Your task to perform on an android device: turn off notifications in google photos Image 0: 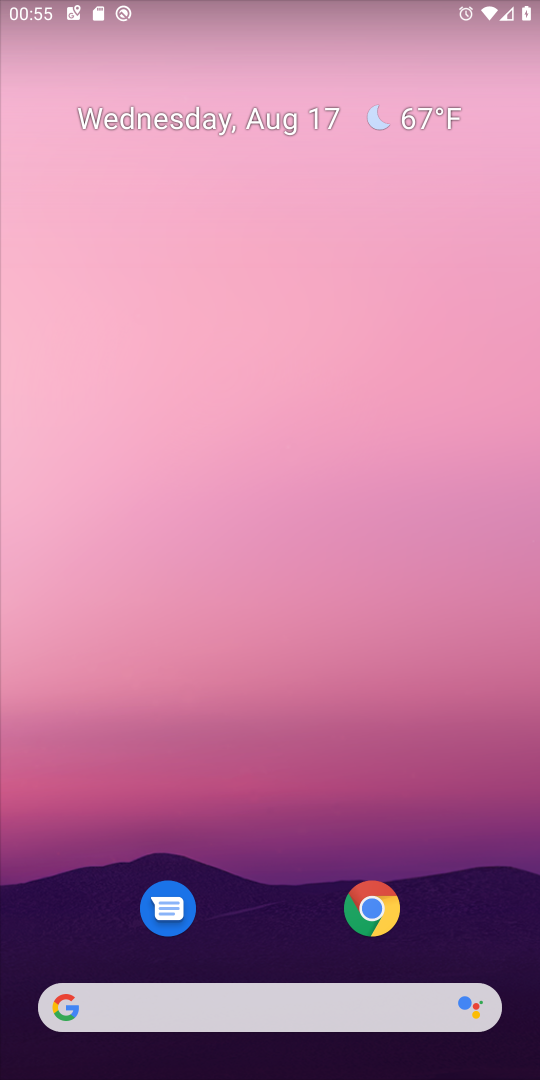
Step 0: drag from (272, 901) to (298, 346)
Your task to perform on an android device: turn off notifications in google photos Image 1: 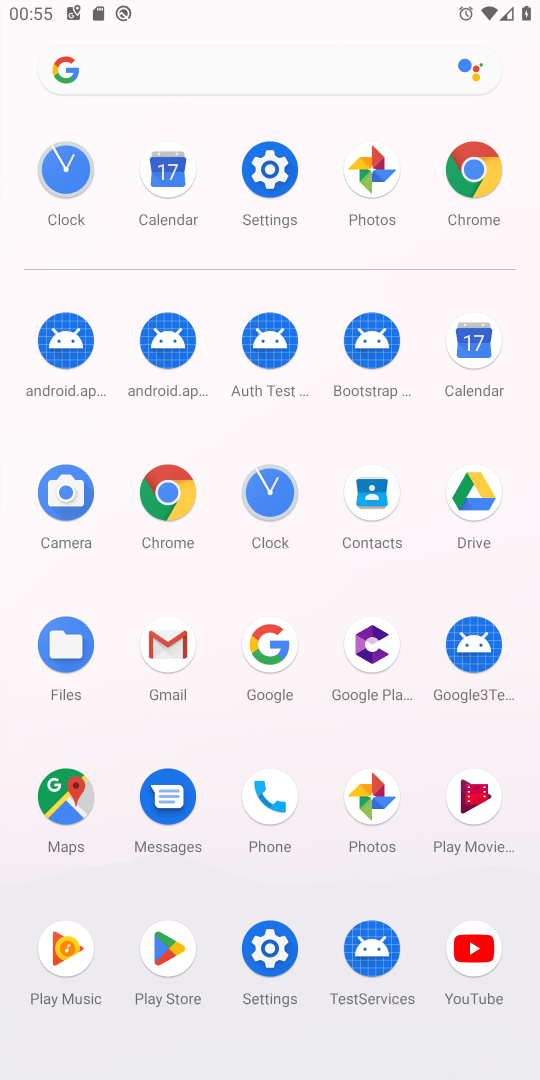
Step 1: click (374, 184)
Your task to perform on an android device: turn off notifications in google photos Image 2: 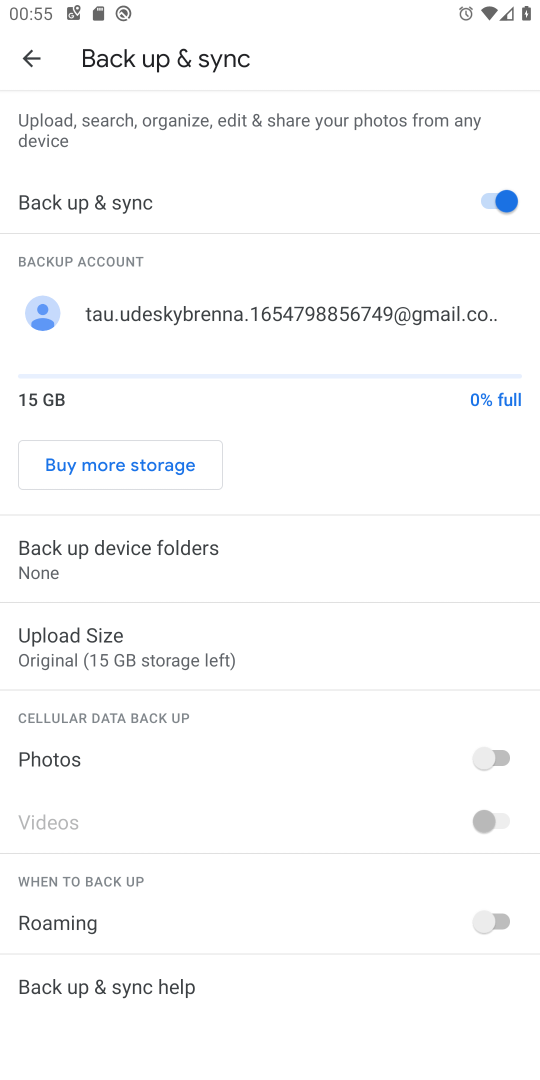
Step 2: click (26, 48)
Your task to perform on an android device: turn off notifications in google photos Image 3: 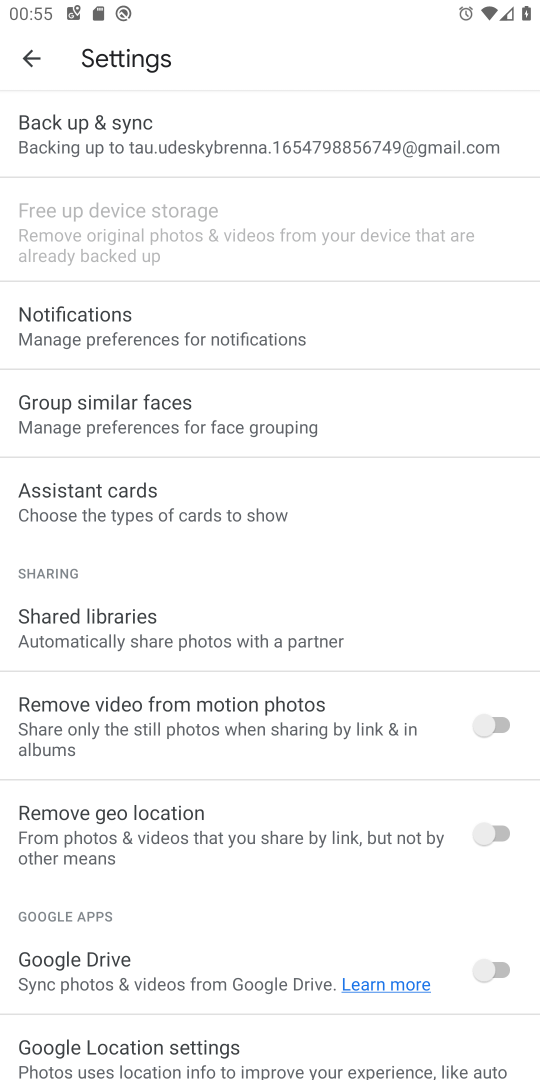
Step 3: click (159, 322)
Your task to perform on an android device: turn off notifications in google photos Image 4: 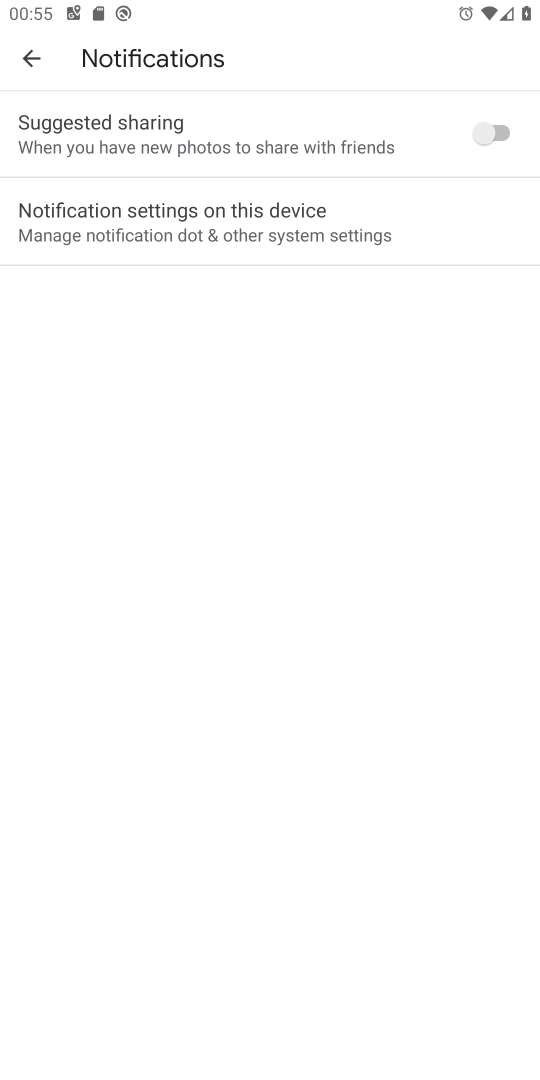
Step 4: click (194, 209)
Your task to perform on an android device: turn off notifications in google photos Image 5: 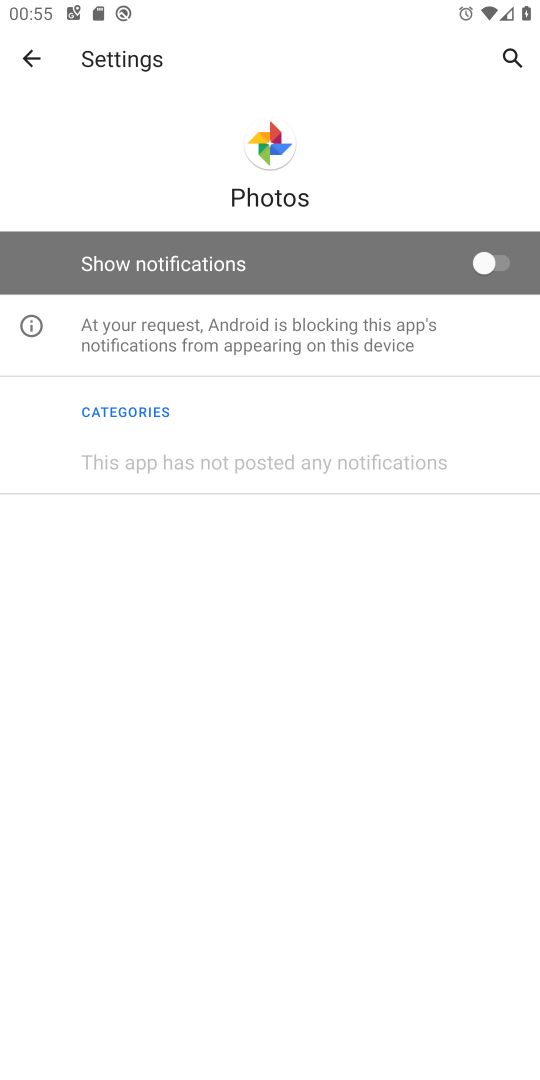
Step 5: task complete